Your task to perform on an android device: turn off airplane mode Image 0: 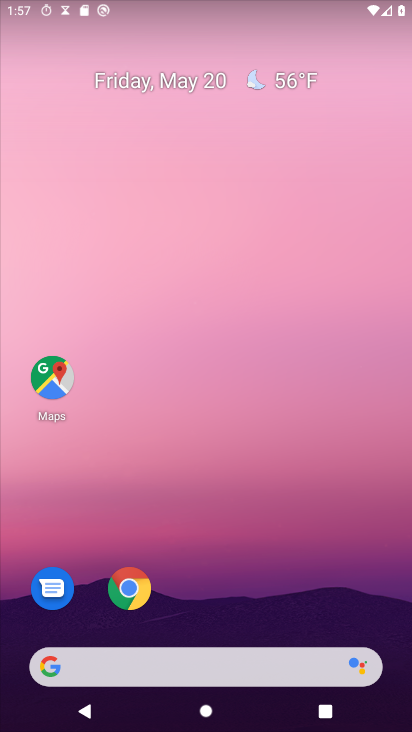
Step 0: drag from (321, 4) to (321, 351)
Your task to perform on an android device: turn off airplane mode Image 1: 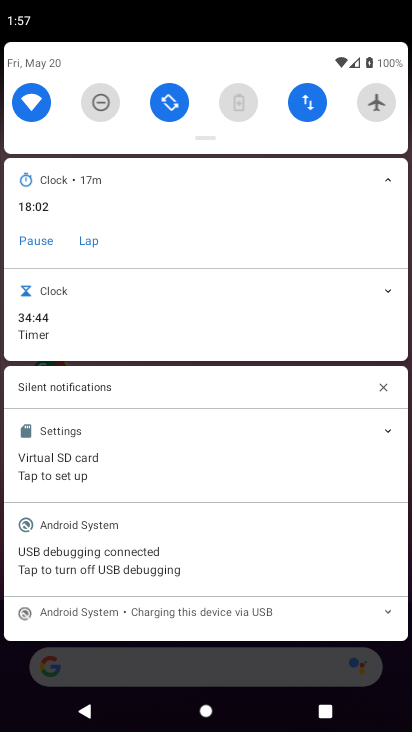
Step 1: task complete